Your task to perform on an android device: Open Google Chrome and click the shortcut for Amazon.com Image 0: 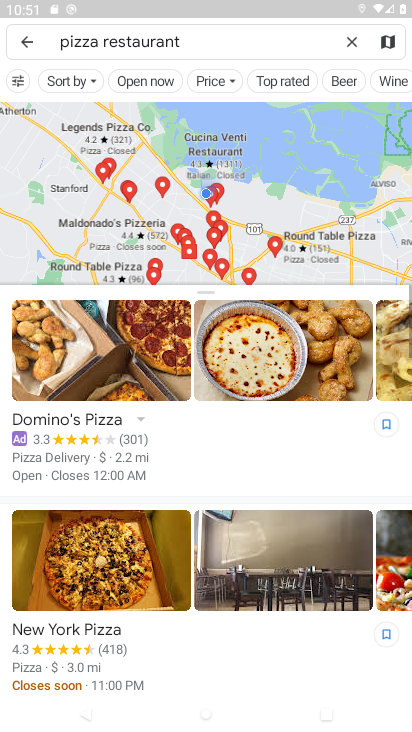
Step 0: press home button
Your task to perform on an android device: Open Google Chrome and click the shortcut for Amazon.com Image 1: 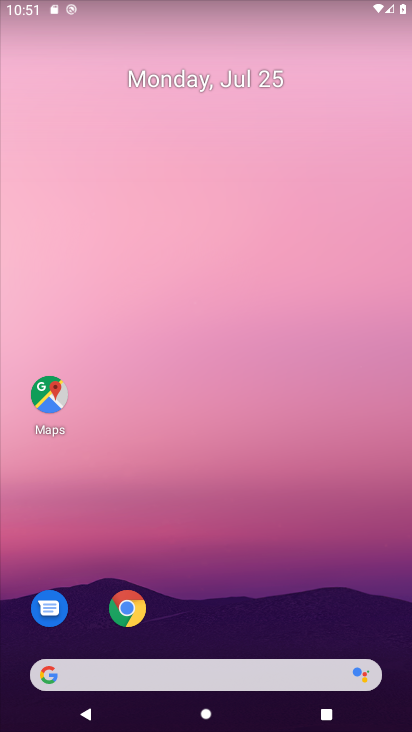
Step 1: drag from (144, 647) to (220, 193)
Your task to perform on an android device: Open Google Chrome and click the shortcut for Amazon.com Image 2: 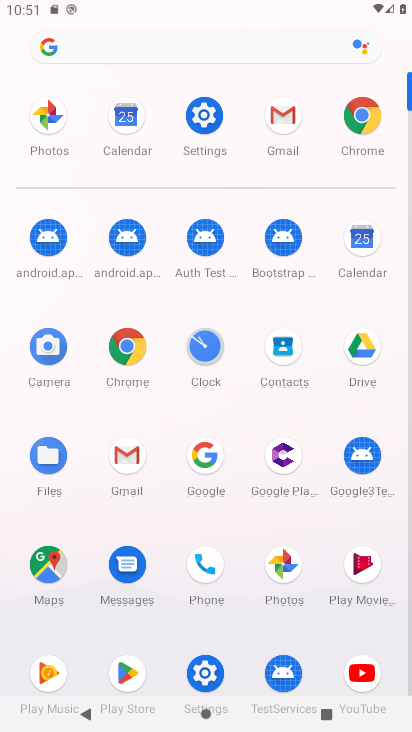
Step 2: click (133, 357)
Your task to perform on an android device: Open Google Chrome and click the shortcut for Amazon.com Image 3: 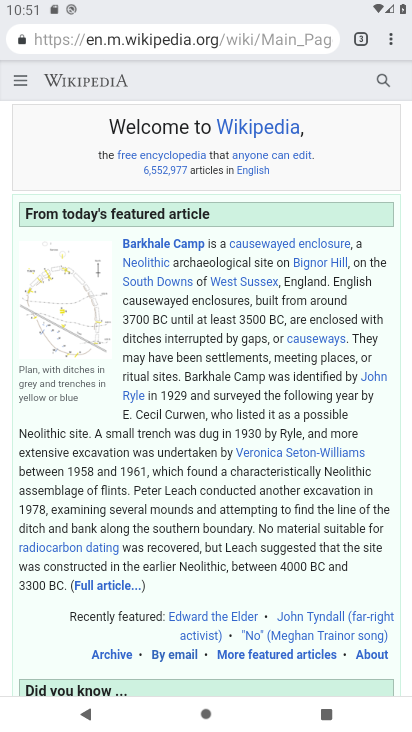
Step 3: click (391, 31)
Your task to perform on an android device: Open Google Chrome and click the shortcut for Amazon.com Image 4: 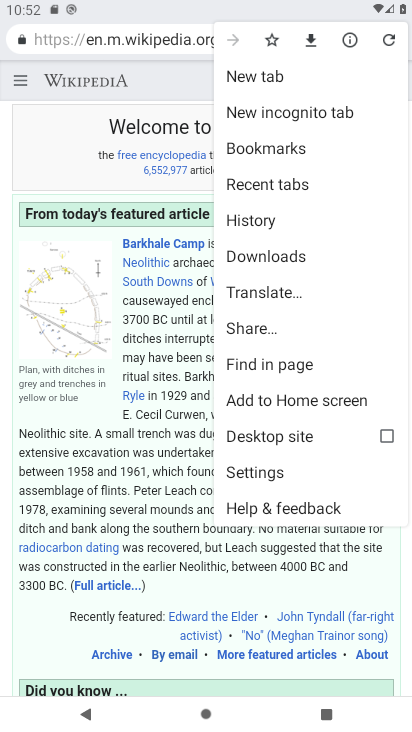
Step 4: click (271, 86)
Your task to perform on an android device: Open Google Chrome and click the shortcut for Amazon.com Image 5: 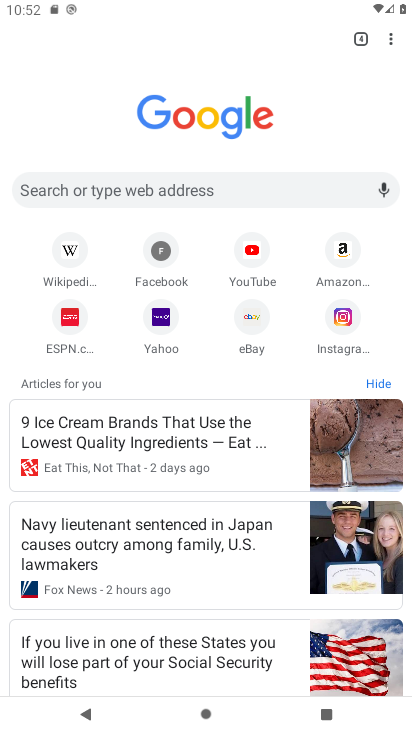
Step 5: click (329, 250)
Your task to perform on an android device: Open Google Chrome and click the shortcut for Amazon.com Image 6: 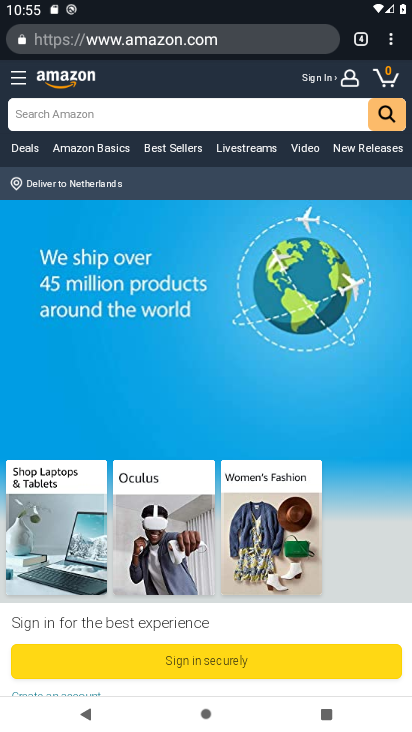
Step 6: task complete